Your task to perform on an android device: Search for Mexican restaurants on Maps Image 0: 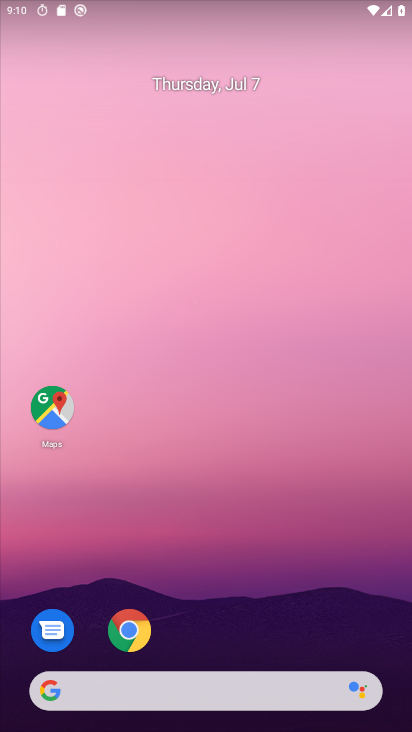
Step 0: click (49, 414)
Your task to perform on an android device: Search for Mexican restaurants on Maps Image 1: 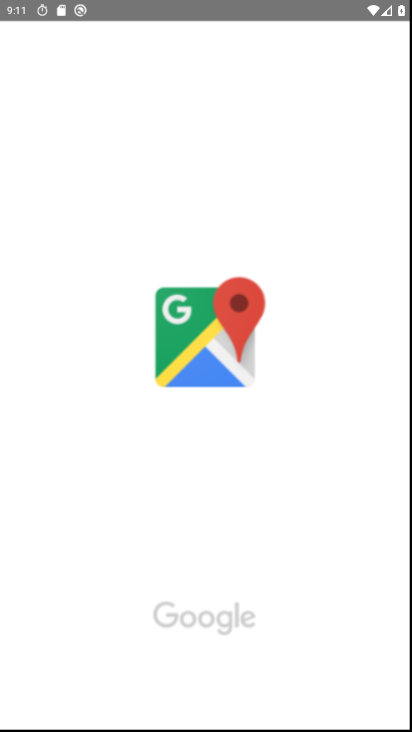
Step 1: click (172, 389)
Your task to perform on an android device: Search for Mexican restaurants on Maps Image 2: 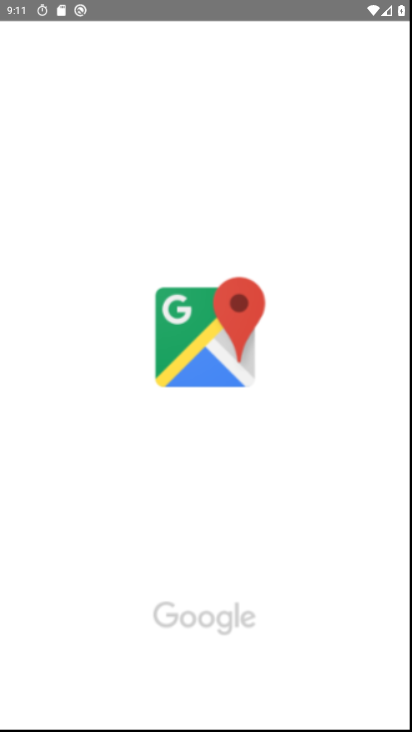
Step 2: task complete